Your task to perform on an android device: refresh tabs in the chrome app Image 0: 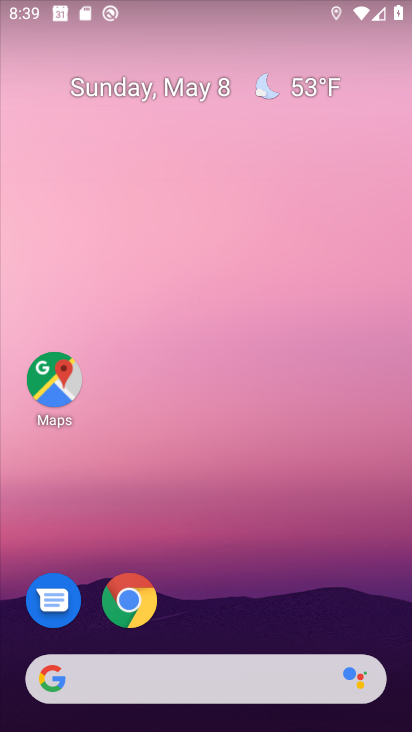
Step 0: click (143, 603)
Your task to perform on an android device: refresh tabs in the chrome app Image 1: 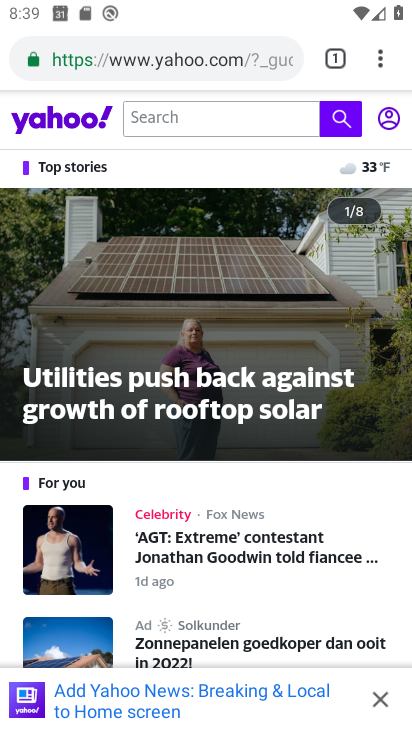
Step 1: click (379, 68)
Your task to perform on an android device: refresh tabs in the chrome app Image 2: 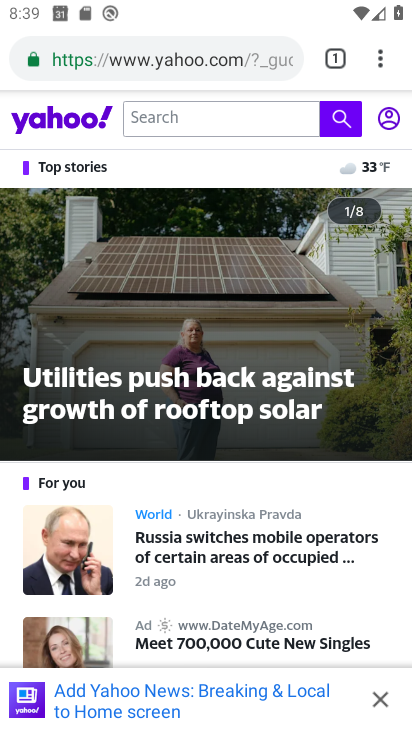
Step 2: task complete